Your task to perform on an android device: turn on the 12-hour format for clock Image 0: 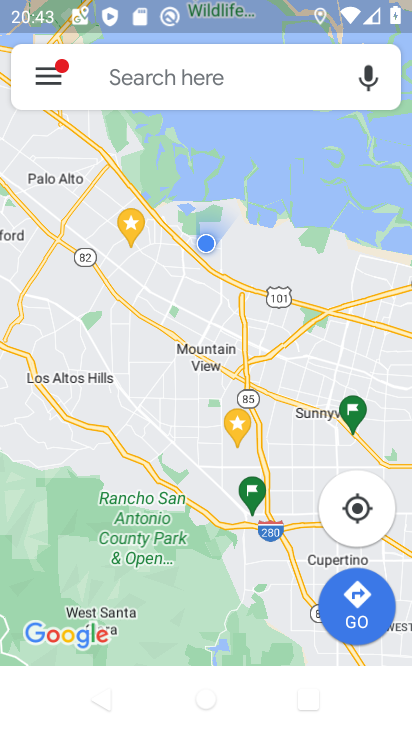
Step 0: press home button
Your task to perform on an android device: turn on the 12-hour format for clock Image 1: 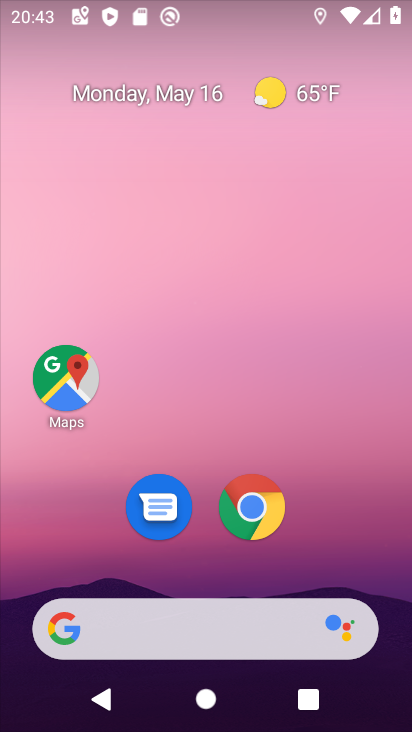
Step 1: drag from (202, 544) to (389, 37)
Your task to perform on an android device: turn on the 12-hour format for clock Image 2: 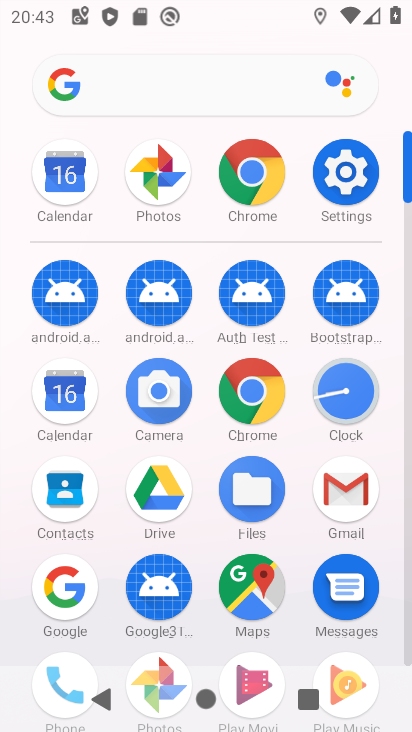
Step 2: click (341, 410)
Your task to perform on an android device: turn on the 12-hour format for clock Image 3: 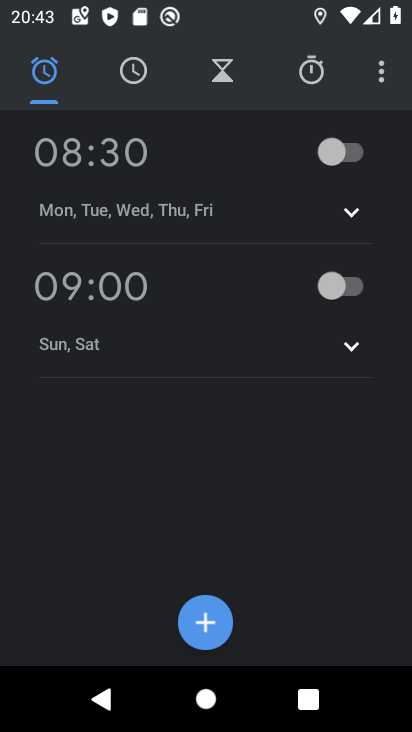
Step 3: click (373, 83)
Your task to perform on an android device: turn on the 12-hour format for clock Image 4: 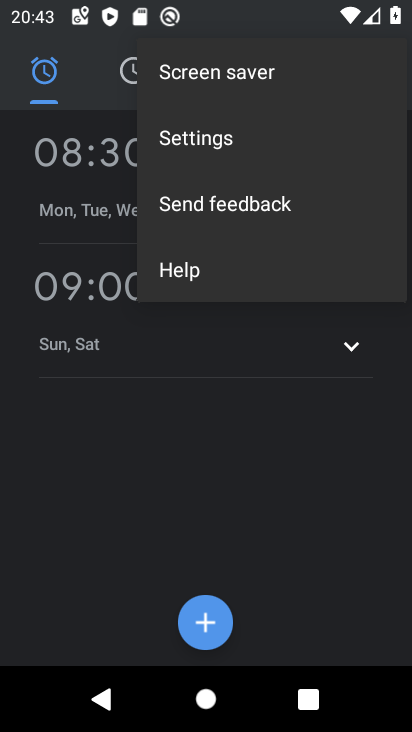
Step 4: click (265, 144)
Your task to perform on an android device: turn on the 12-hour format for clock Image 5: 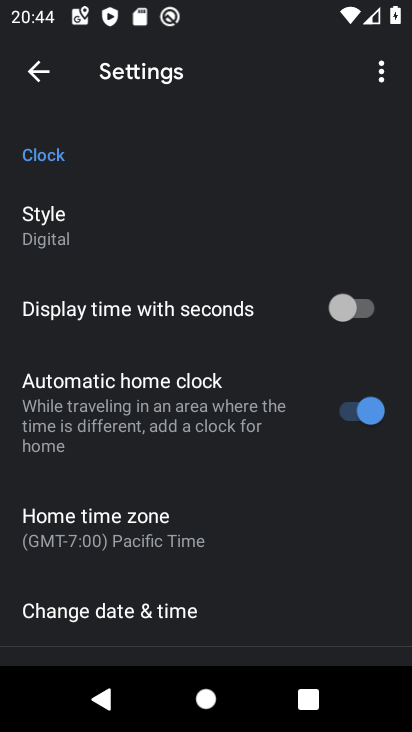
Step 5: click (154, 622)
Your task to perform on an android device: turn on the 12-hour format for clock Image 6: 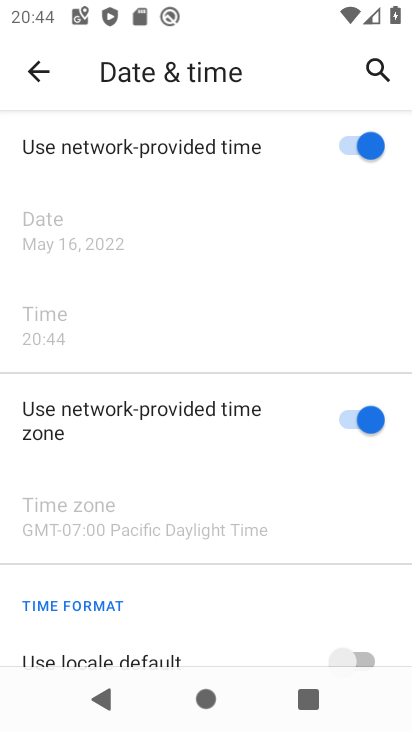
Step 6: drag from (224, 531) to (224, 79)
Your task to perform on an android device: turn on the 12-hour format for clock Image 7: 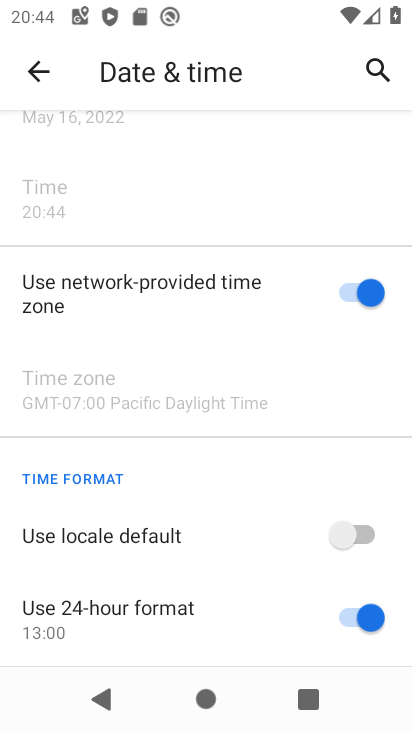
Step 7: click (373, 625)
Your task to perform on an android device: turn on the 12-hour format for clock Image 8: 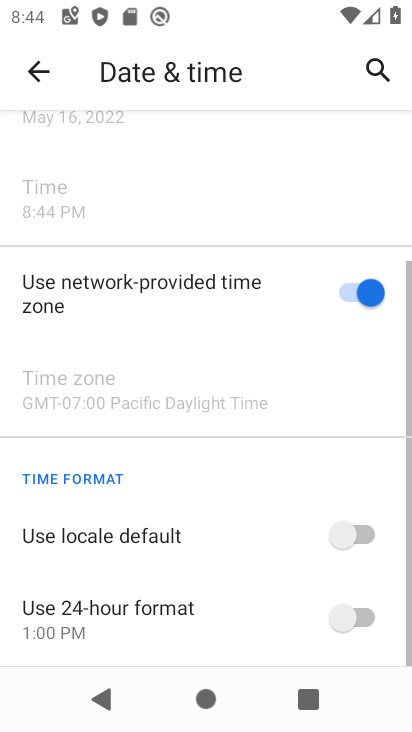
Step 8: task complete